Your task to perform on an android device: change the clock display to analog Image 0: 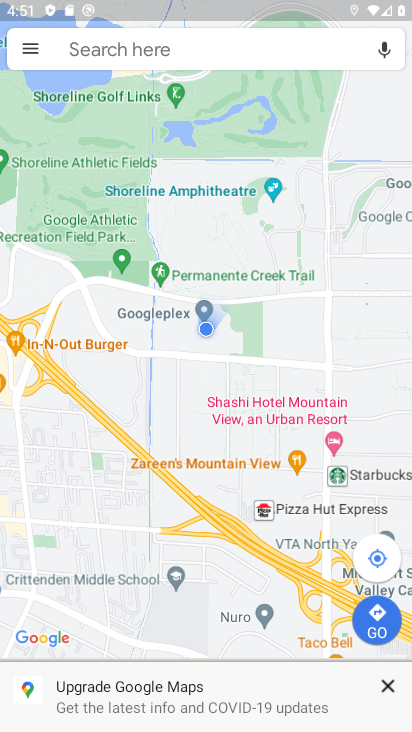
Step 0: press home button
Your task to perform on an android device: change the clock display to analog Image 1: 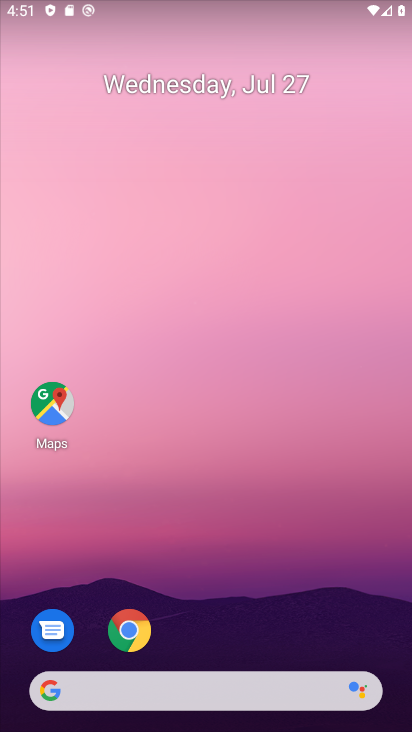
Step 1: drag from (260, 633) to (229, 167)
Your task to perform on an android device: change the clock display to analog Image 2: 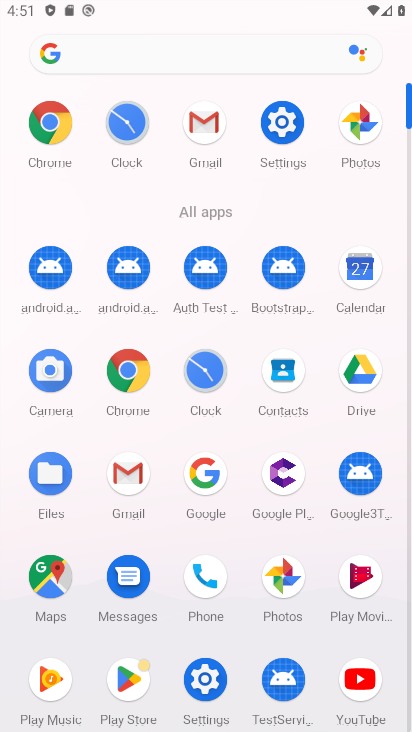
Step 2: click (121, 128)
Your task to perform on an android device: change the clock display to analog Image 3: 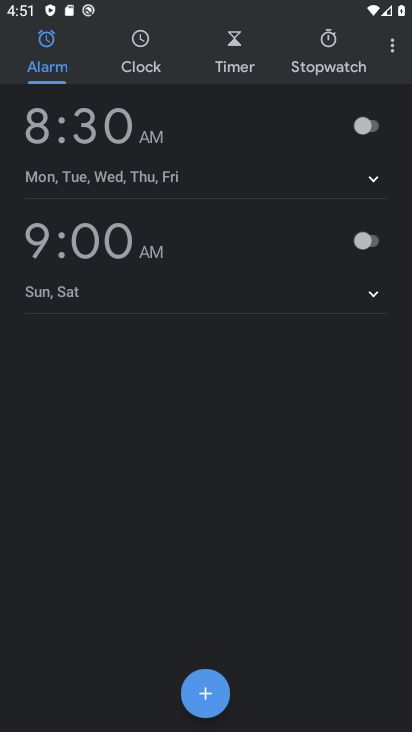
Step 3: click (397, 56)
Your task to perform on an android device: change the clock display to analog Image 4: 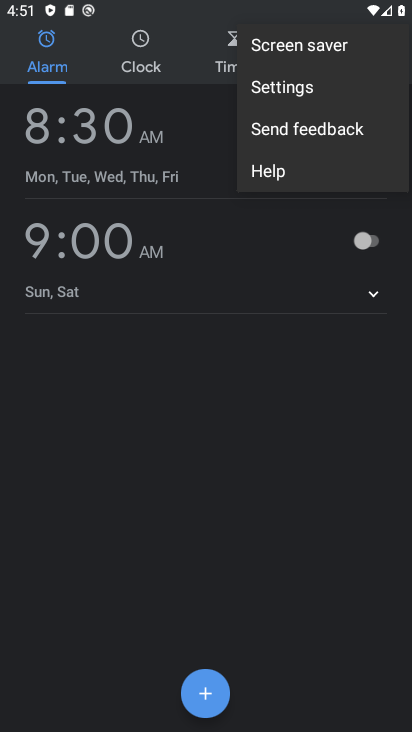
Step 4: click (338, 87)
Your task to perform on an android device: change the clock display to analog Image 5: 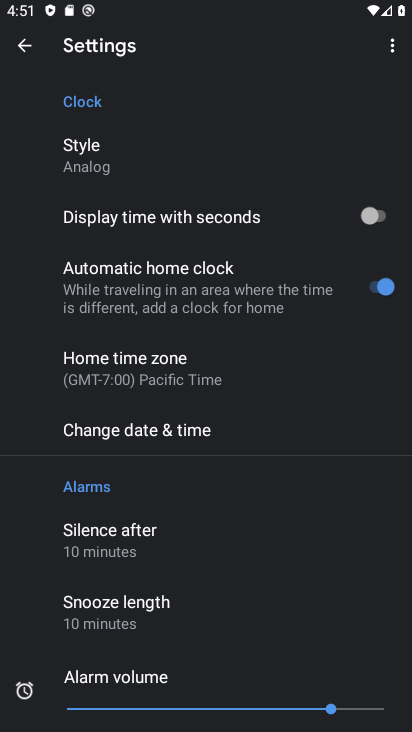
Step 5: click (157, 152)
Your task to perform on an android device: change the clock display to analog Image 6: 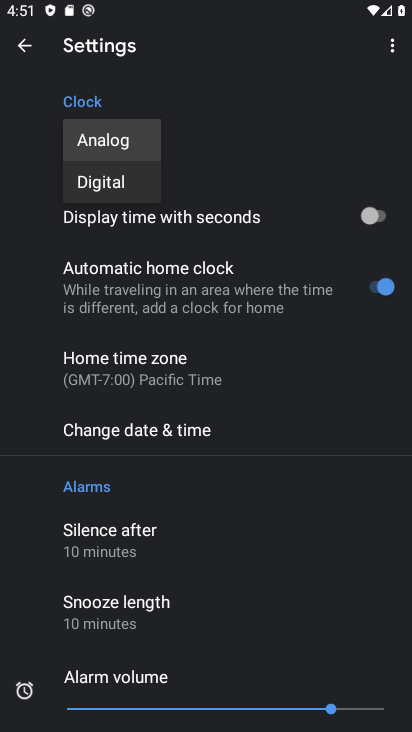
Step 6: task complete